Your task to perform on an android device: turn off data saver in the chrome app Image 0: 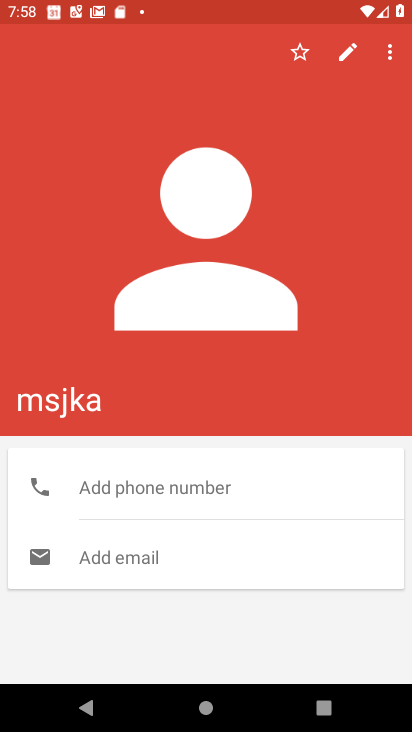
Step 0: drag from (179, 601) to (243, 192)
Your task to perform on an android device: turn off data saver in the chrome app Image 1: 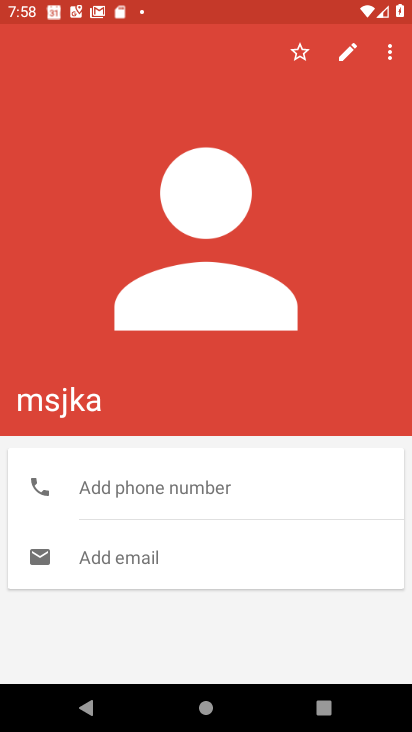
Step 1: drag from (176, 585) to (211, 398)
Your task to perform on an android device: turn off data saver in the chrome app Image 2: 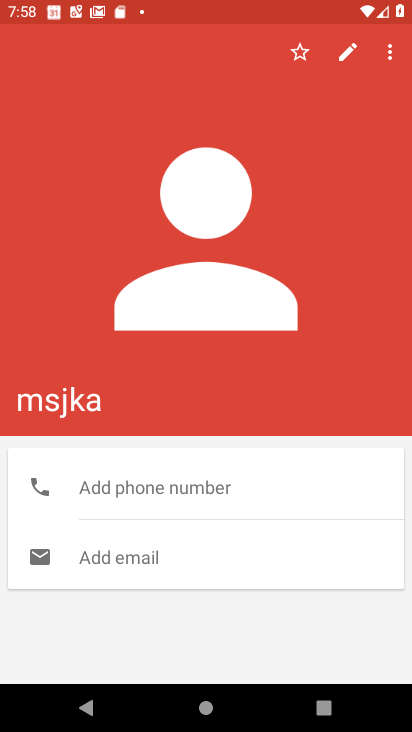
Step 2: drag from (186, 647) to (205, 419)
Your task to perform on an android device: turn off data saver in the chrome app Image 3: 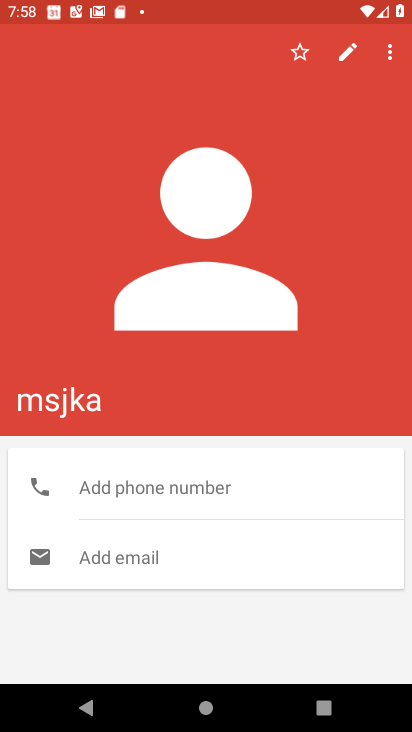
Step 3: drag from (220, 594) to (265, 400)
Your task to perform on an android device: turn off data saver in the chrome app Image 4: 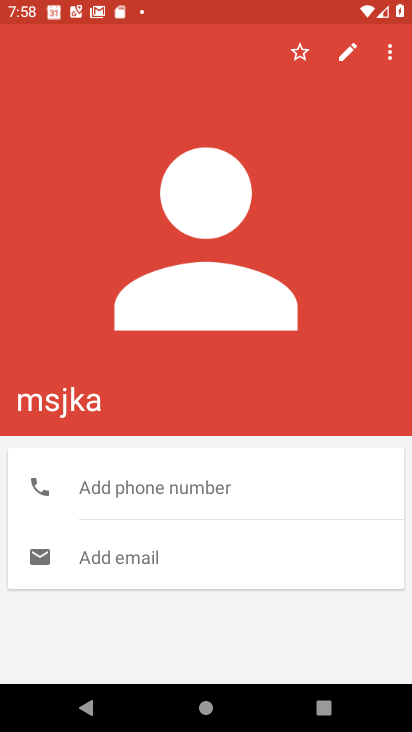
Step 4: press home button
Your task to perform on an android device: turn off data saver in the chrome app Image 5: 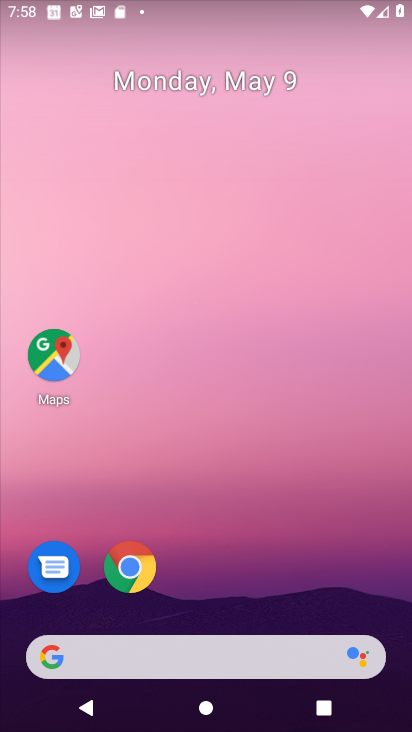
Step 5: drag from (212, 596) to (244, 354)
Your task to perform on an android device: turn off data saver in the chrome app Image 6: 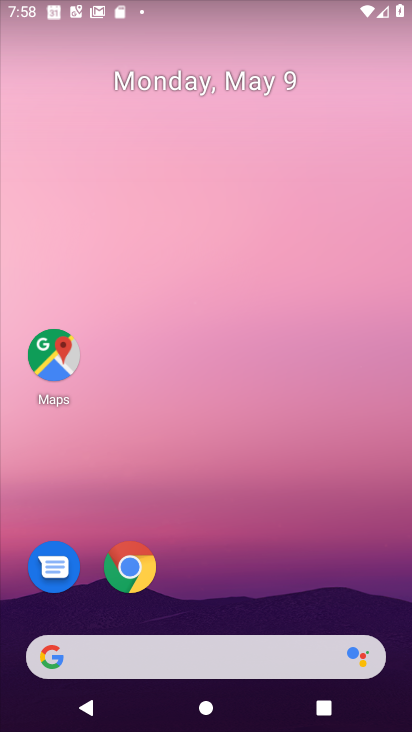
Step 6: drag from (206, 600) to (211, 377)
Your task to perform on an android device: turn off data saver in the chrome app Image 7: 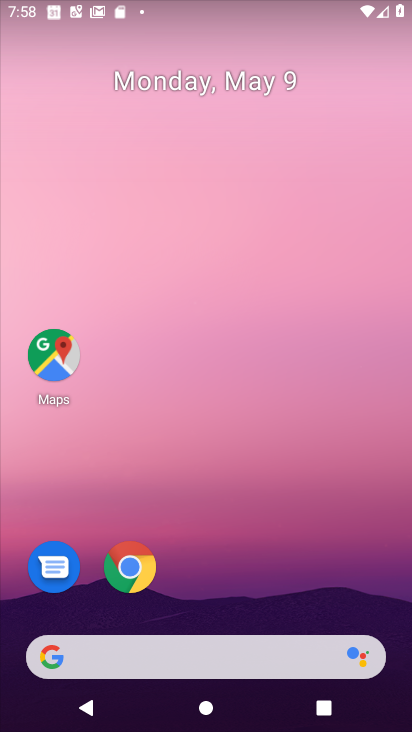
Step 7: drag from (186, 612) to (224, 221)
Your task to perform on an android device: turn off data saver in the chrome app Image 8: 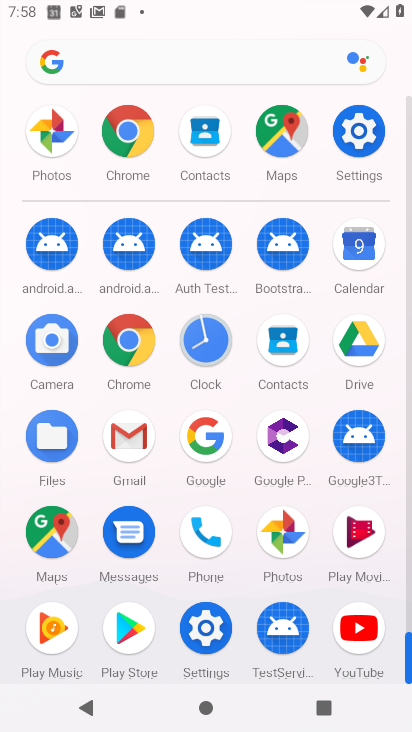
Step 8: click (125, 337)
Your task to perform on an android device: turn off data saver in the chrome app Image 9: 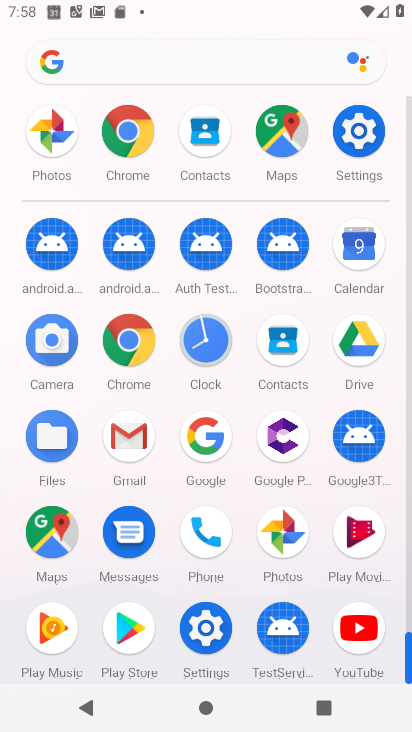
Step 9: click (125, 337)
Your task to perform on an android device: turn off data saver in the chrome app Image 10: 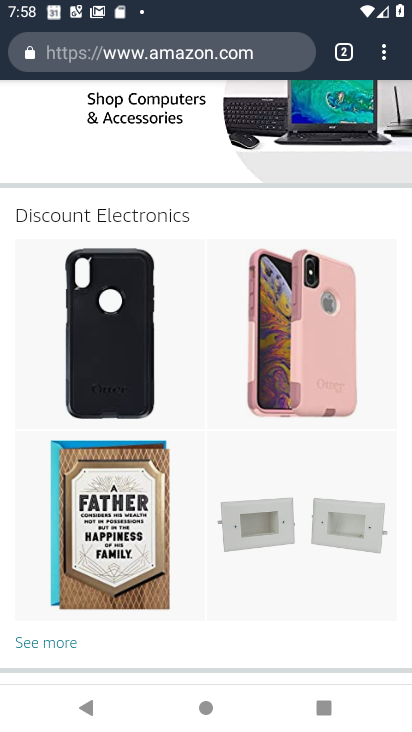
Step 10: drag from (245, 169) to (288, 603)
Your task to perform on an android device: turn off data saver in the chrome app Image 11: 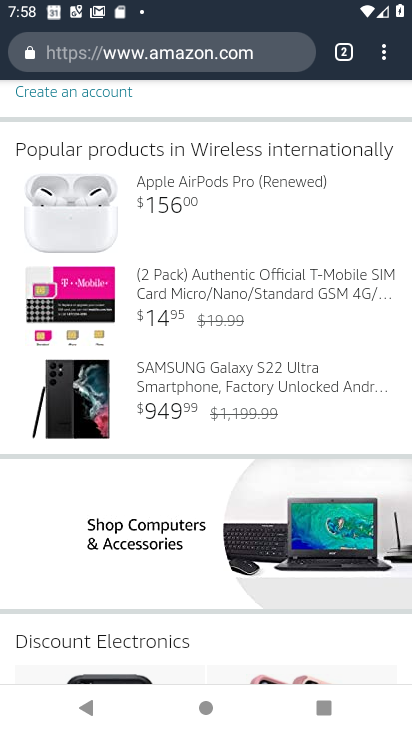
Step 11: drag from (217, 232) to (368, 712)
Your task to perform on an android device: turn off data saver in the chrome app Image 12: 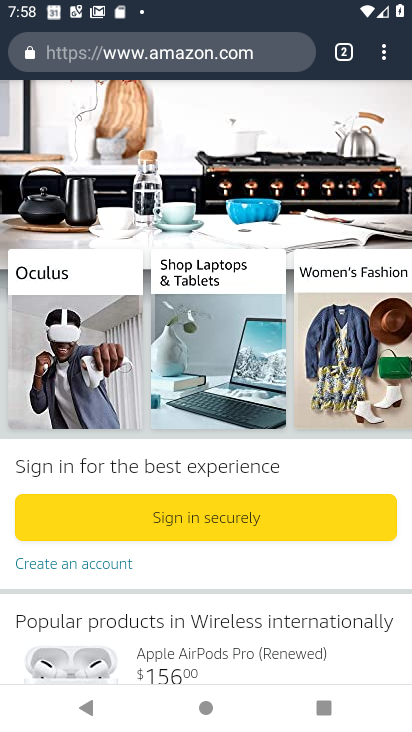
Step 12: drag from (208, 162) to (397, 641)
Your task to perform on an android device: turn off data saver in the chrome app Image 13: 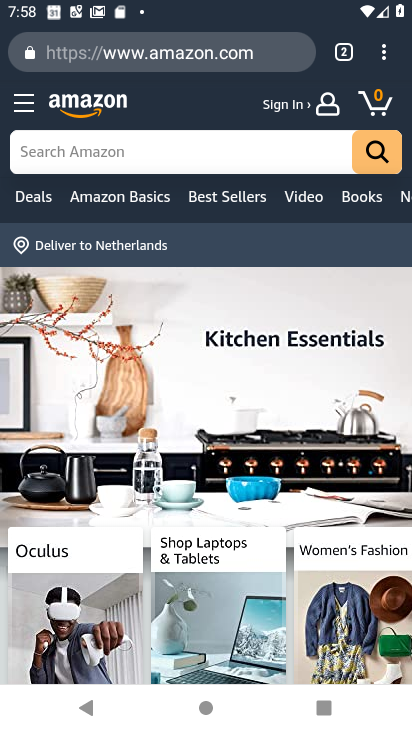
Step 13: drag from (387, 62) to (280, 483)
Your task to perform on an android device: turn off data saver in the chrome app Image 14: 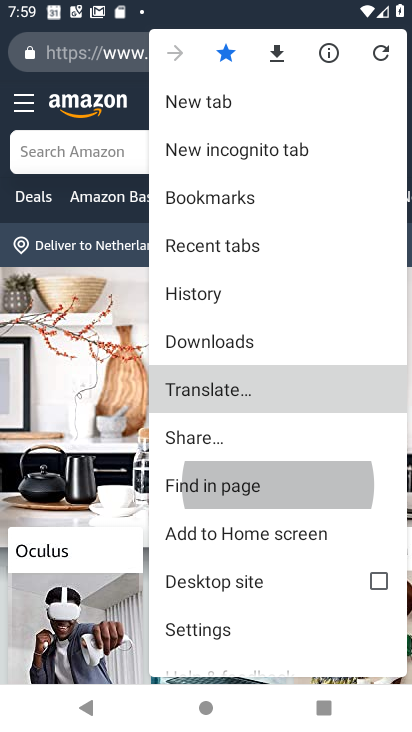
Step 14: drag from (286, 258) to (272, 617)
Your task to perform on an android device: turn off data saver in the chrome app Image 15: 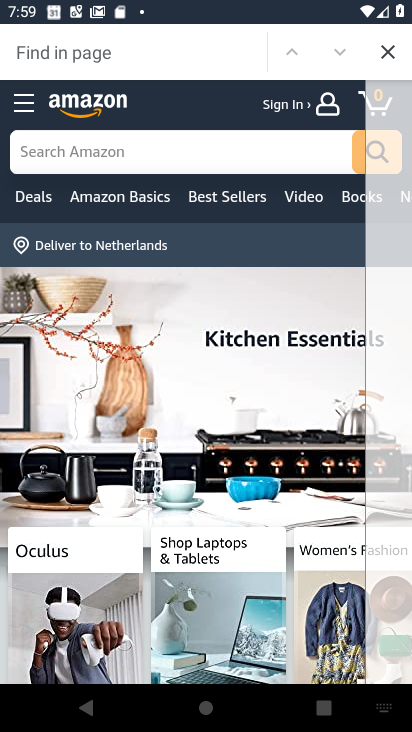
Step 15: click (387, 50)
Your task to perform on an android device: turn off data saver in the chrome app Image 16: 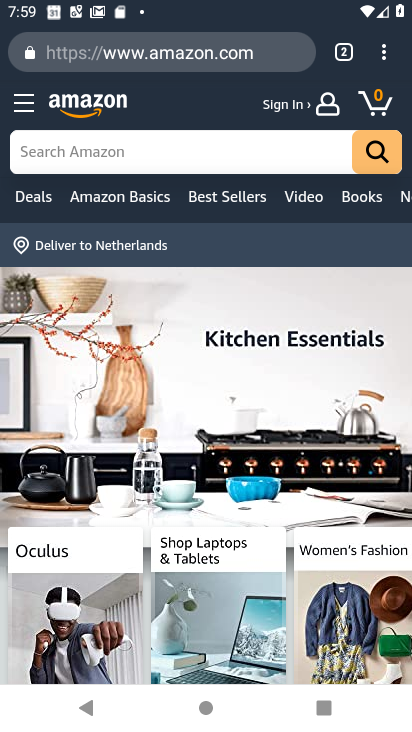
Step 16: drag from (230, 440) to (235, 170)
Your task to perform on an android device: turn off data saver in the chrome app Image 17: 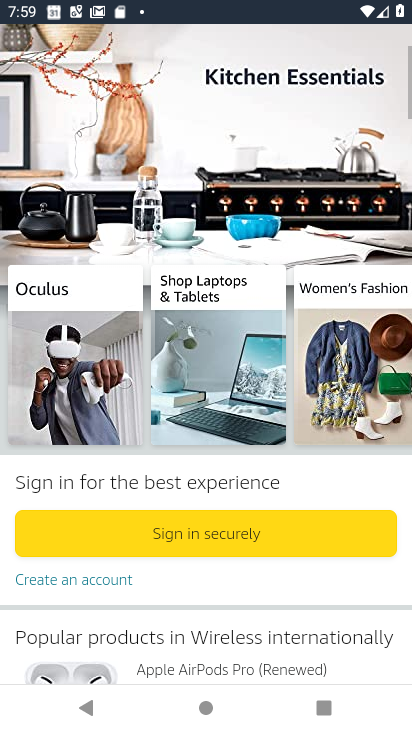
Step 17: drag from (382, 43) to (303, 566)
Your task to perform on an android device: turn off data saver in the chrome app Image 18: 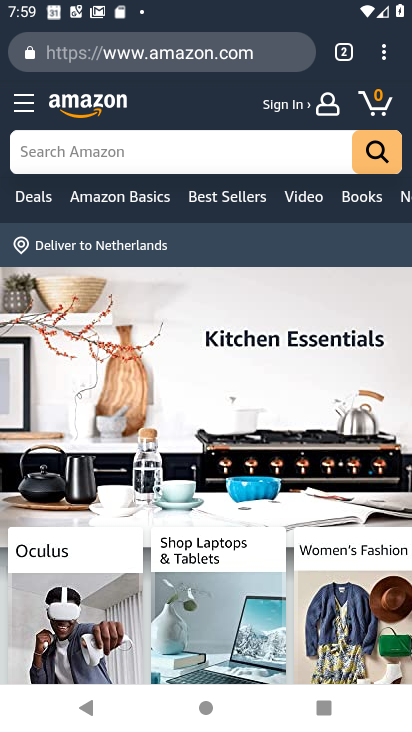
Step 18: drag from (388, 48) to (261, 622)
Your task to perform on an android device: turn off data saver in the chrome app Image 19: 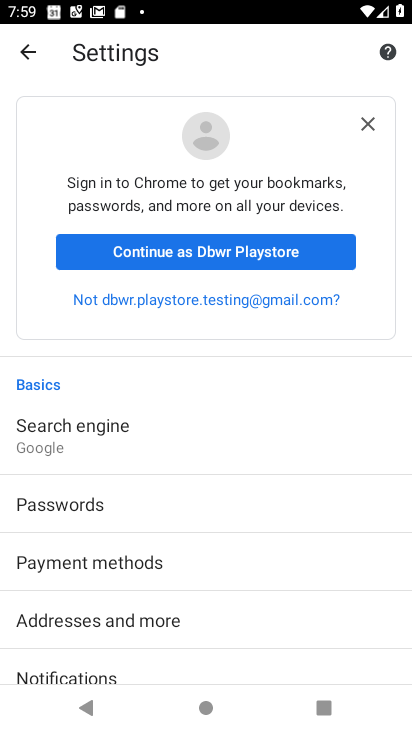
Step 19: drag from (166, 554) to (253, 3)
Your task to perform on an android device: turn off data saver in the chrome app Image 20: 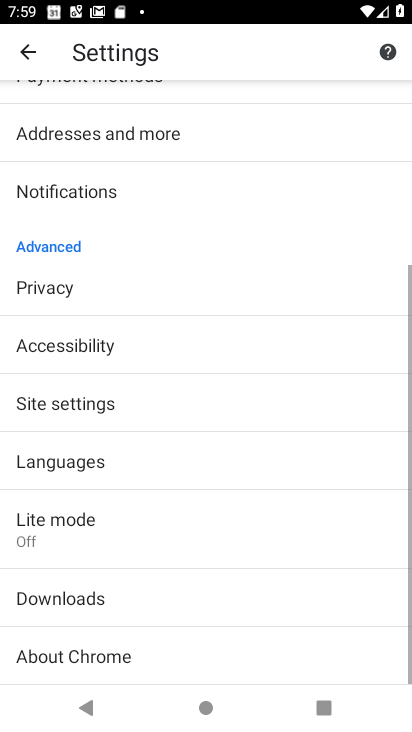
Step 20: drag from (163, 589) to (200, 262)
Your task to perform on an android device: turn off data saver in the chrome app Image 21: 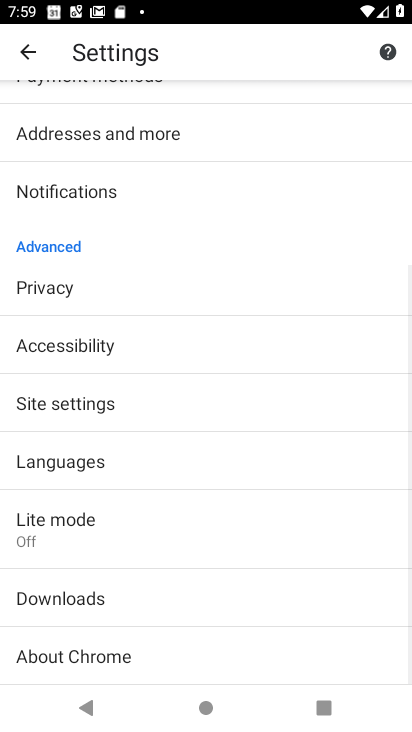
Step 21: click (101, 529)
Your task to perform on an android device: turn off data saver in the chrome app Image 22: 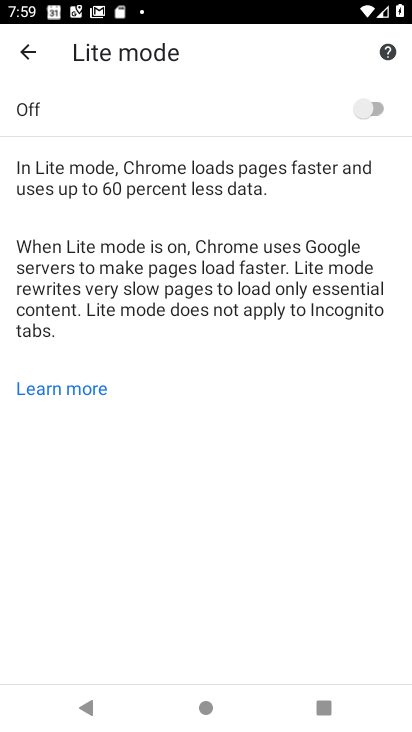
Step 22: task complete